Your task to perform on an android device: change the clock display to analog Image 0: 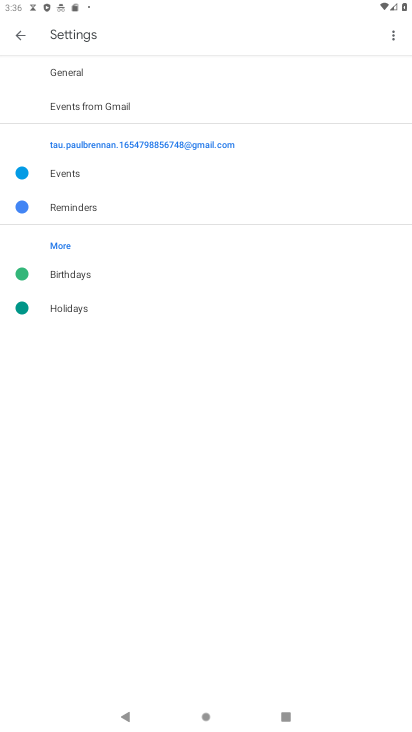
Step 0: click (23, 35)
Your task to perform on an android device: change the clock display to analog Image 1: 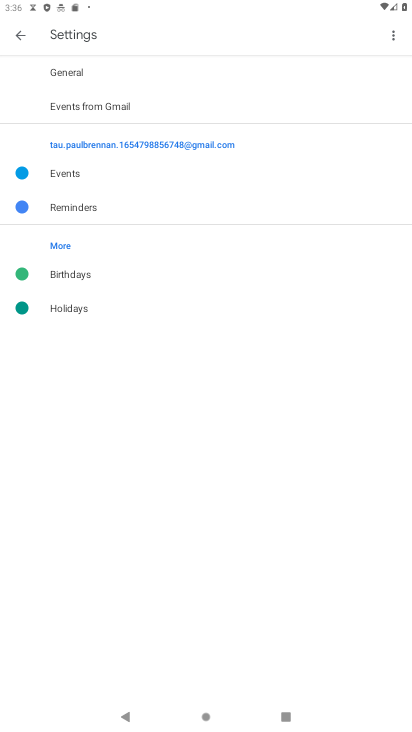
Step 1: click (18, 31)
Your task to perform on an android device: change the clock display to analog Image 2: 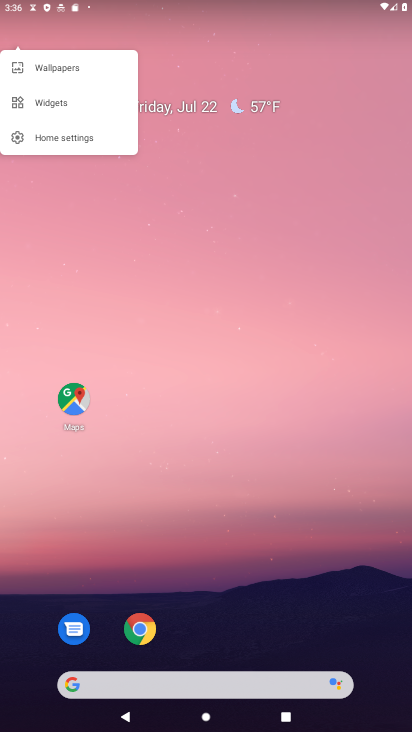
Step 2: drag from (113, 168) to (141, 12)
Your task to perform on an android device: change the clock display to analog Image 3: 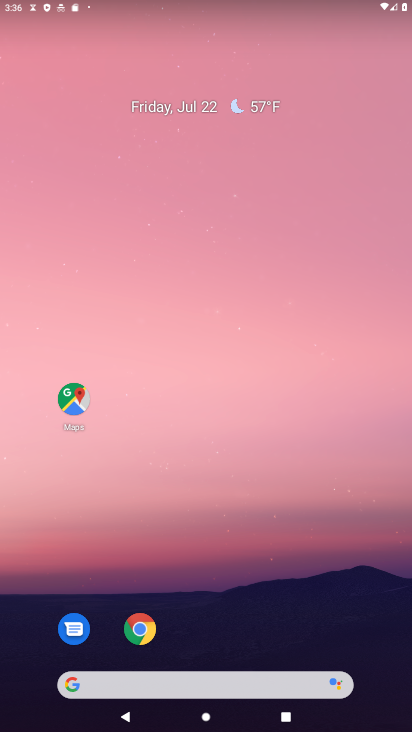
Step 3: drag from (199, 274) to (165, 113)
Your task to perform on an android device: change the clock display to analog Image 4: 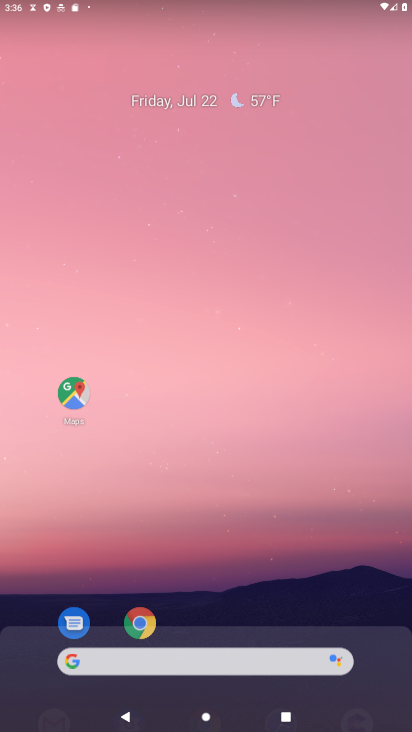
Step 4: drag from (121, 89) to (270, 268)
Your task to perform on an android device: change the clock display to analog Image 5: 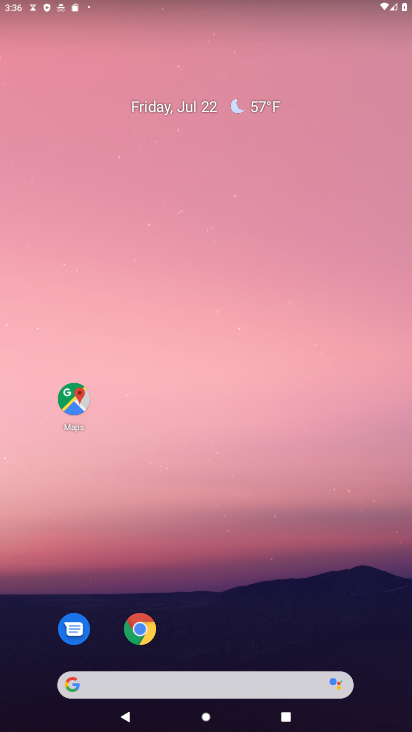
Step 5: drag from (206, 169) to (215, 290)
Your task to perform on an android device: change the clock display to analog Image 6: 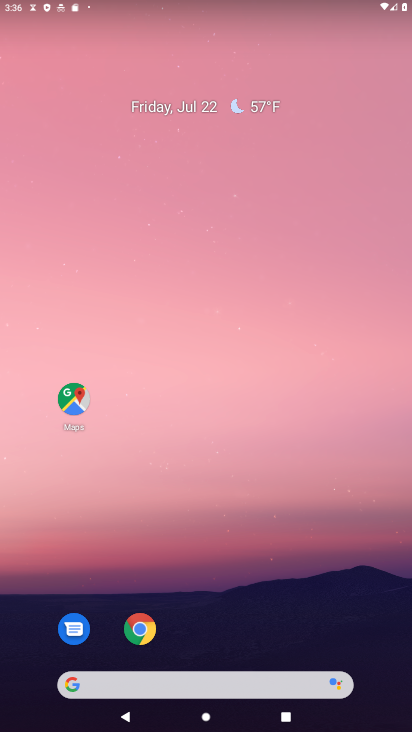
Step 6: drag from (266, 550) to (222, 81)
Your task to perform on an android device: change the clock display to analog Image 7: 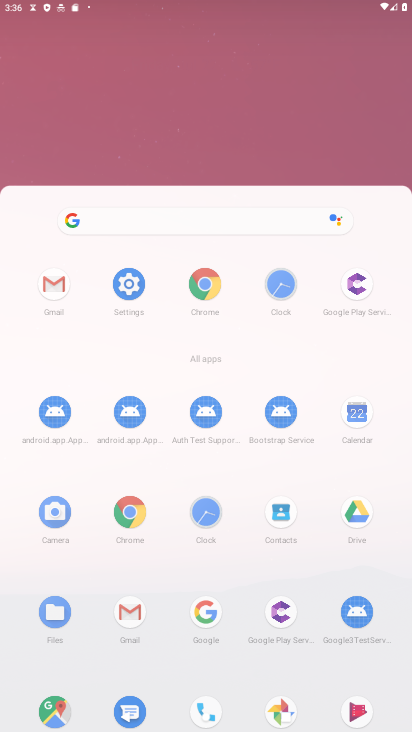
Step 7: drag from (171, 243) to (112, 11)
Your task to perform on an android device: change the clock display to analog Image 8: 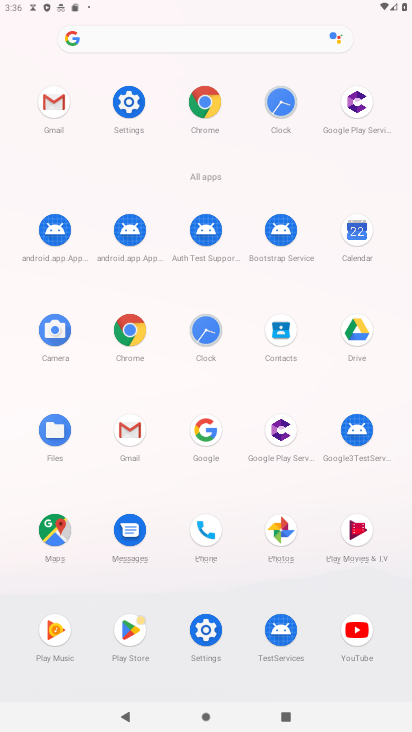
Step 8: drag from (200, 78) to (221, 11)
Your task to perform on an android device: change the clock display to analog Image 9: 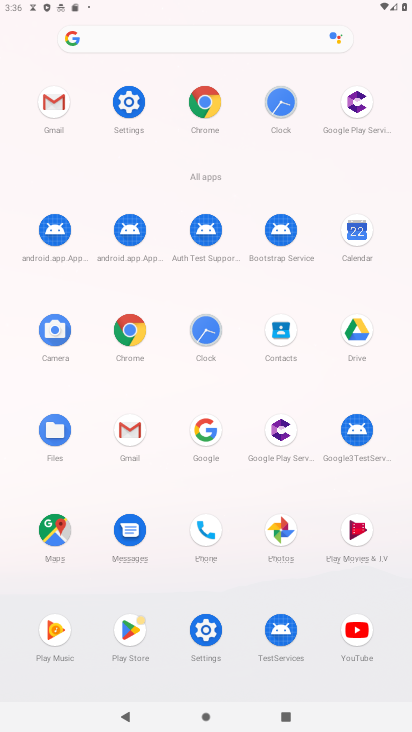
Step 9: click (207, 312)
Your task to perform on an android device: change the clock display to analog Image 10: 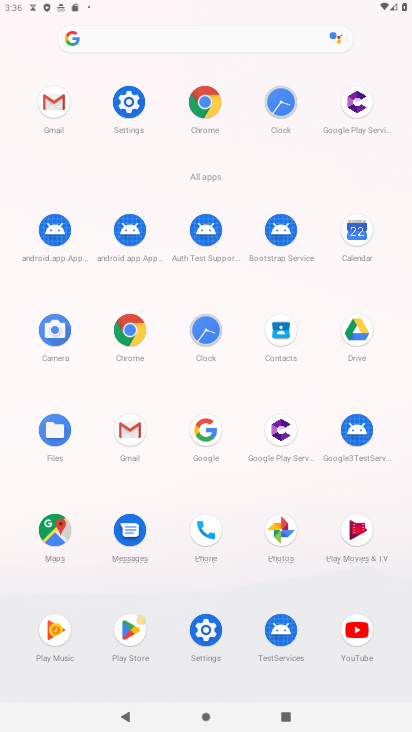
Step 10: click (207, 312)
Your task to perform on an android device: change the clock display to analog Image 11: 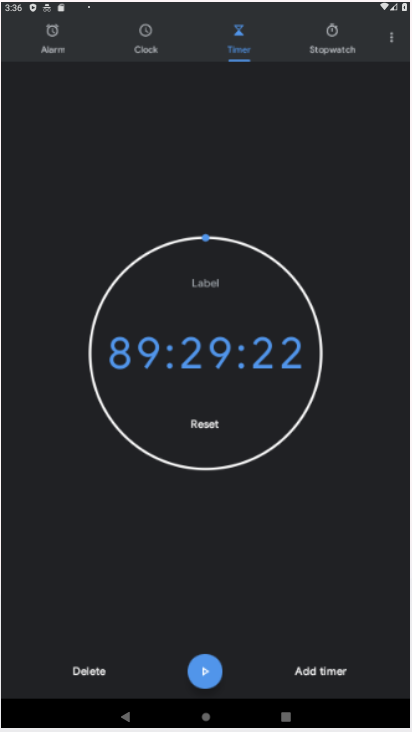
Step 11: click (207, 312)
Your task to perform on an android device: change the clock display to analog Image 12: 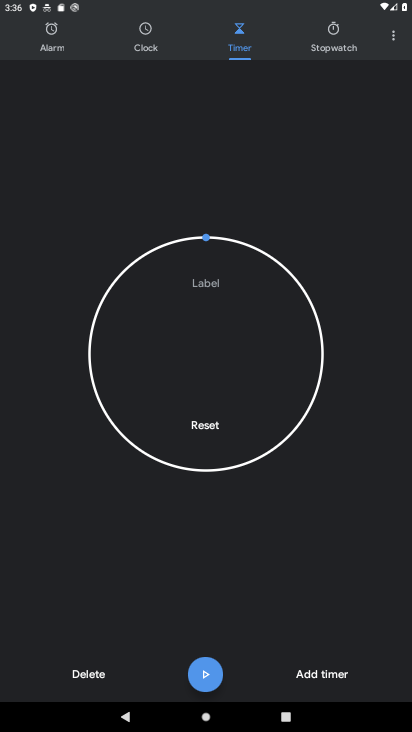
Step 12: click (208, 328)
Your task to perform on an android device: change the clock display to analog Image 13: 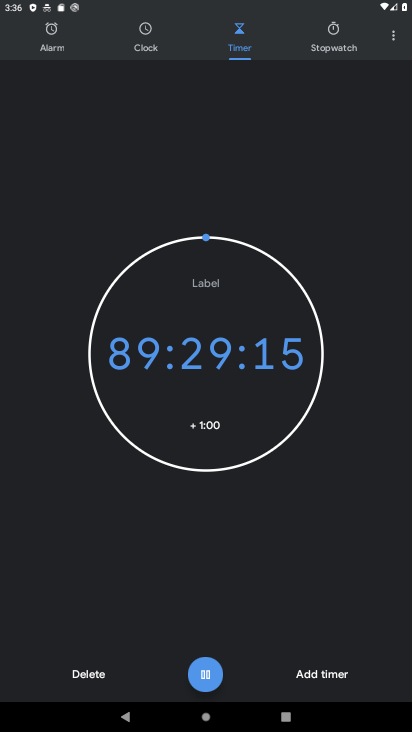
Step 13: click (396, 35)
Your task to perform on an android device: change the clock display to analog Image 14: 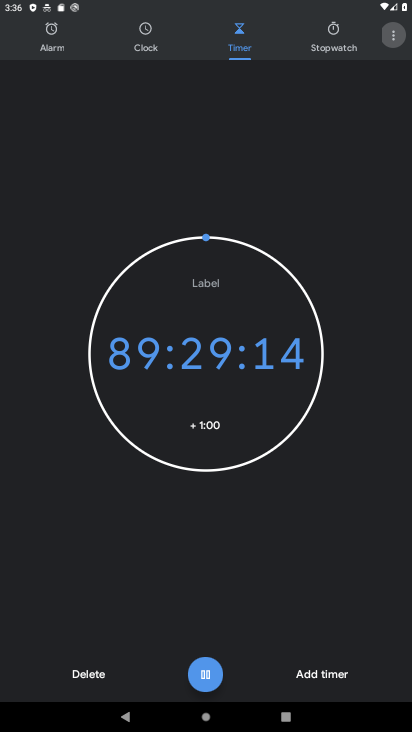
Step 14: click (396, 36)
Your task to perform on an android device: change the clock display to analog Image 15: 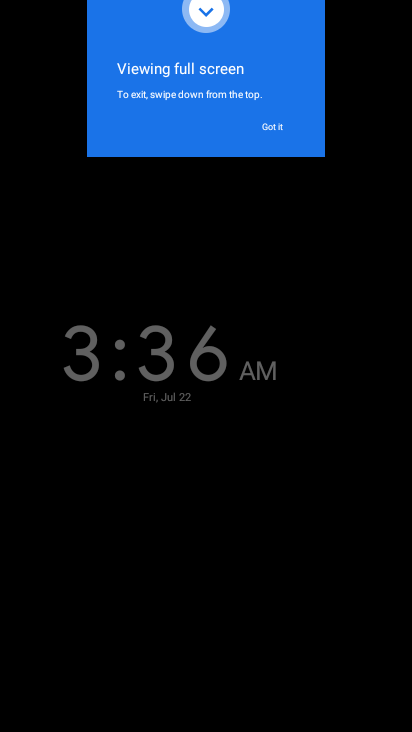
Step 15: drag from (265, 372) to (246, 42)
Your task to perform on an android device: change the clock display to analog Image 16: 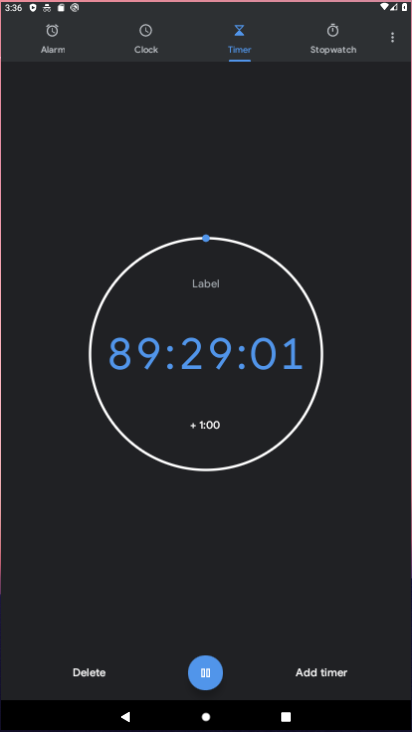
Step 16: click (267, 111)
Your task to perform on an android device: change the clock display to analog Image 17: 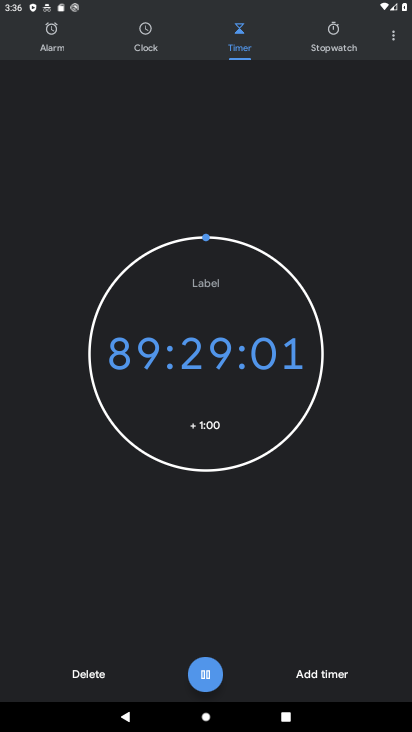
Step 17: click (267, 129)
Your task to perform on an android device: change the clock display to analog Image 18: 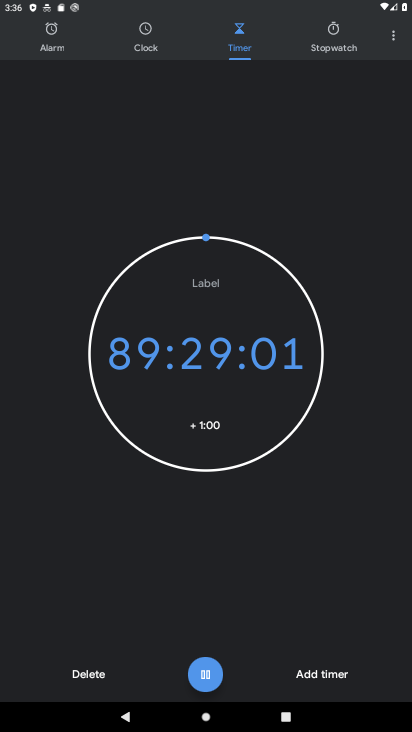
Step 18: click (267, 129)
Your task to perform on an android device: change the clock display to analog Image 19: 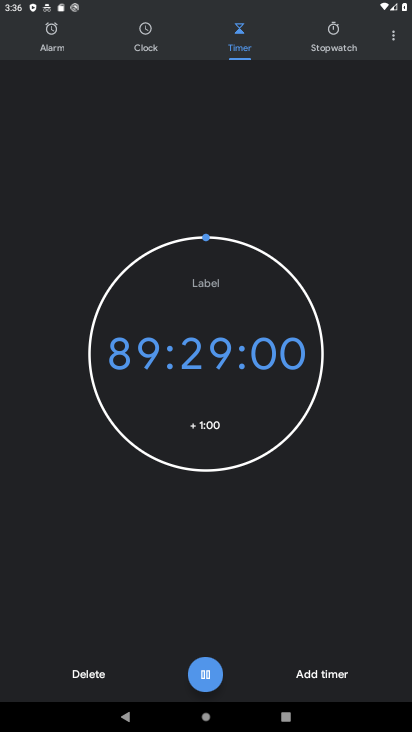
Step 19: drag from (390, 34) to (328, 178)
Your task to perform on an android device: change the clock display to analog Image 20: 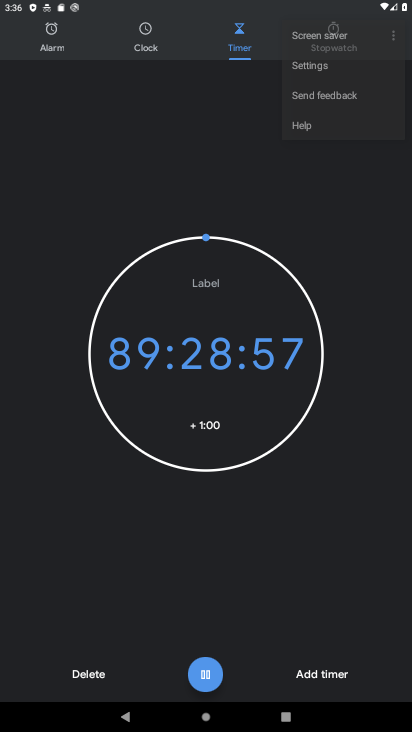
Step 20: click (378, 44)
Your task to perform on an android device: change the clock display to analog Image 21: 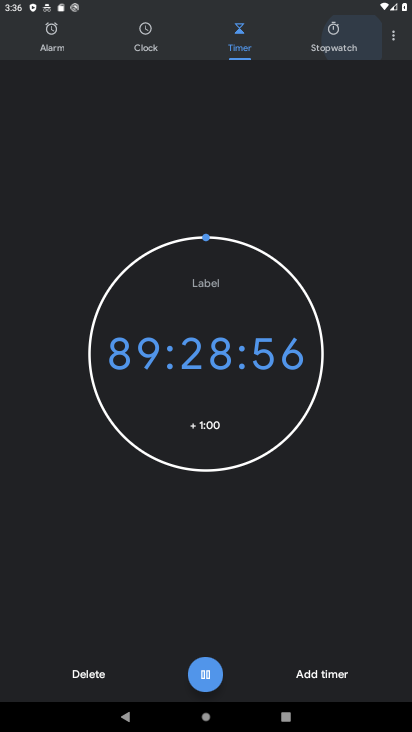
Step 21: click (316, 70)
Your task to perform on an android device: change the clock display to analog Image 22: 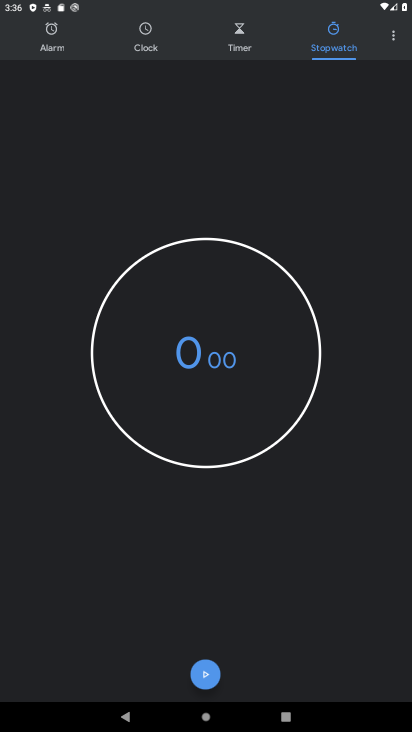
Step 22: click (316, 70)
Your task to perform on an android device: change the clock display to analog Image 23: 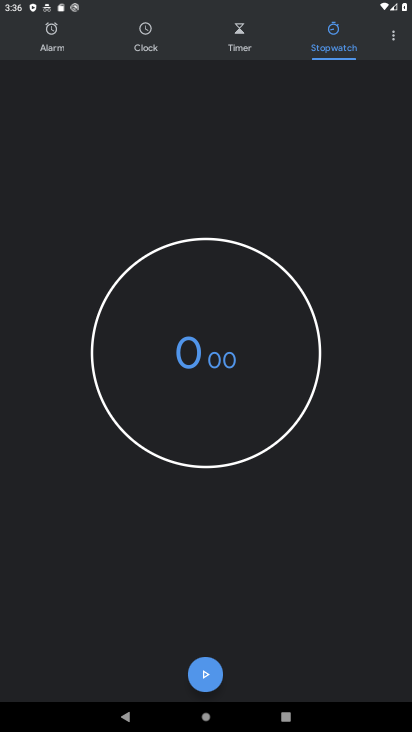
Step 23: click (315, 69)
Your task to perform on an android device: change the clock display to analog Image 24: 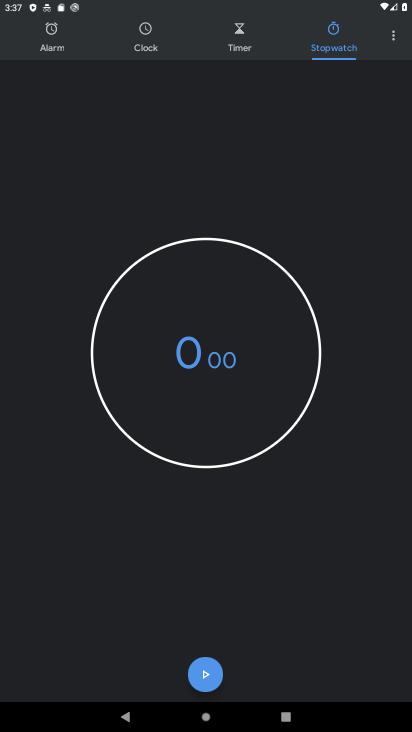
Step 24: click (384, 45)
Your task to perform on an android device: change the clock display to analog Image 25: 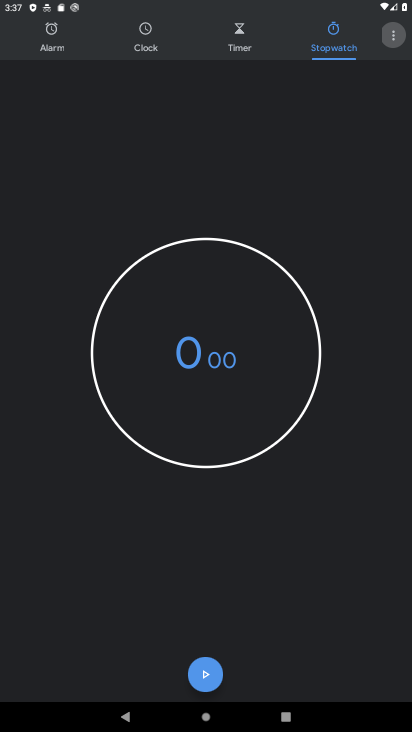
Step 25: click (386, 40)
Your task to perform on an android device: change the clock display to analog Image 26: 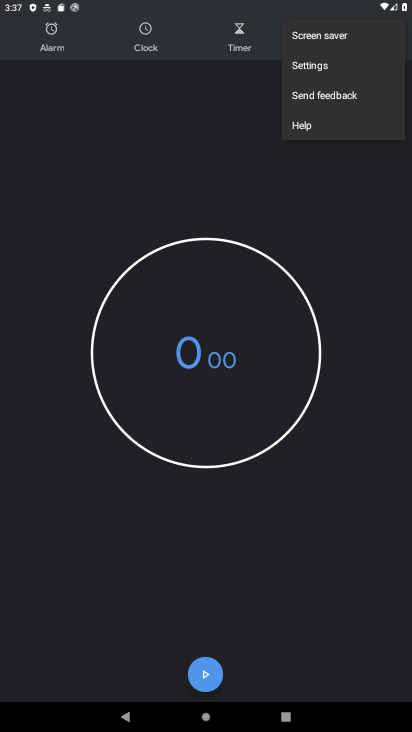
Step 26: click (317, 72)
Your task to perform on an android device: change the clock display to analog Image 27: 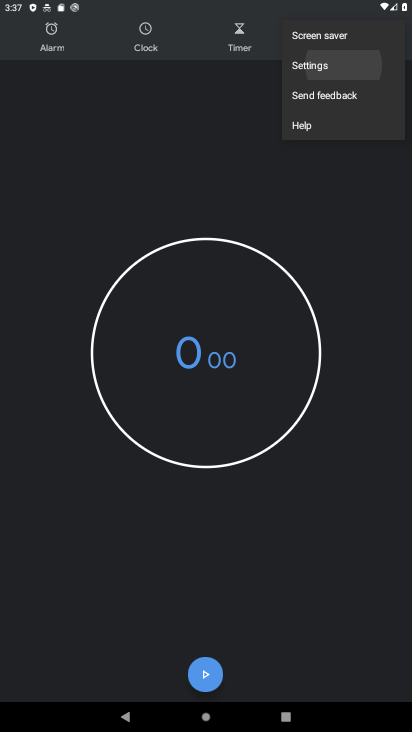
Step 27: click (318, 75)
Your task to perform on an android device: change the clock display to analog Image 28: 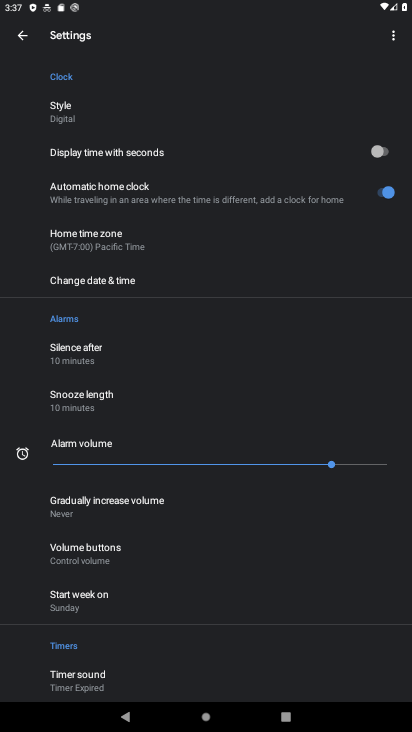
Step 28: click (48, 106)
Your task to perform on an android device: change the clock display to analog Image 29: 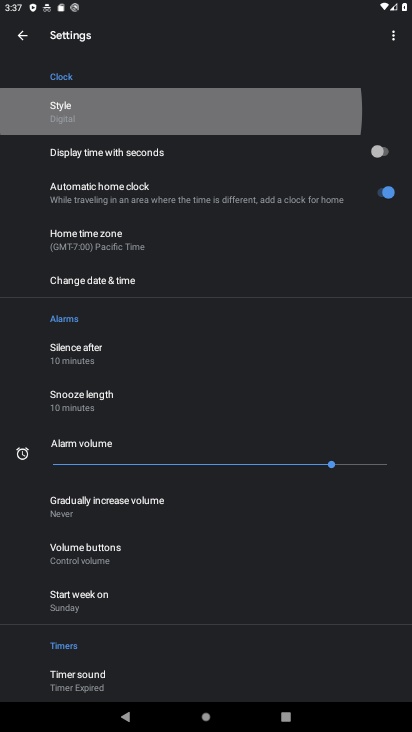
Step 29: click (49, 107)
Your task to perform on an android device: change the clock display to analog Image 30: 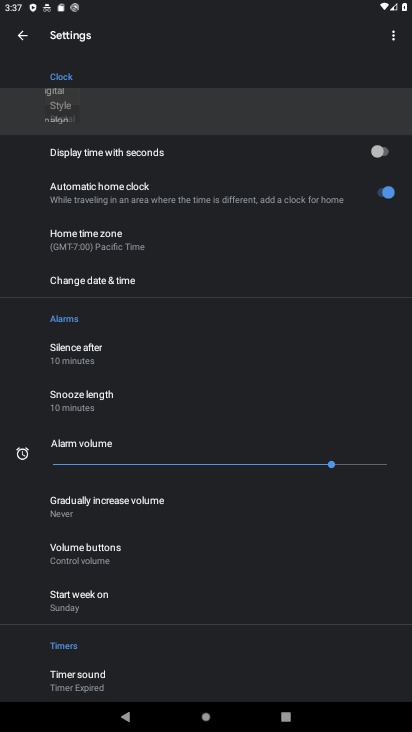
Step 30: click (49, 107)
Your task to perform on an android device: change the clock display to analog Image 31: 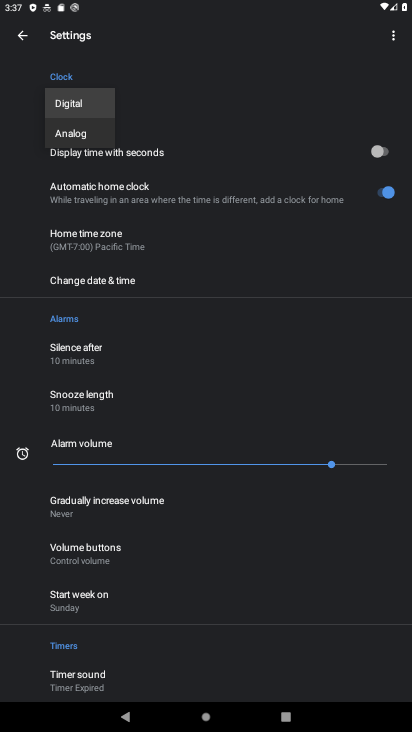
Step 31: click (49, 107)
Your task to perform on an android device: change the clock display to analog Image 32: 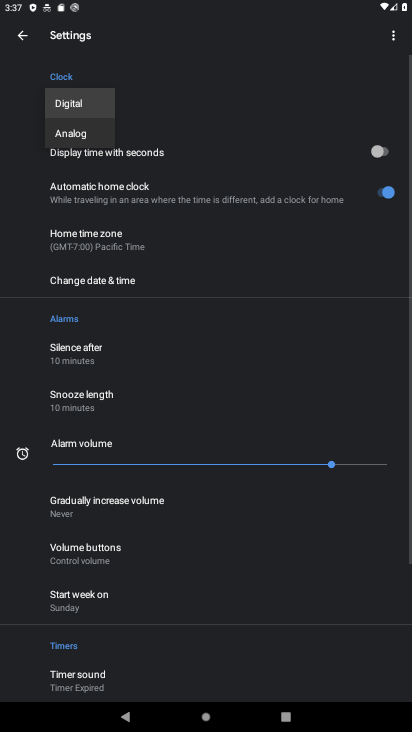
Step 32: click (74, 131)
Your task to perform on an android device: change the clock display to analog Image 33: 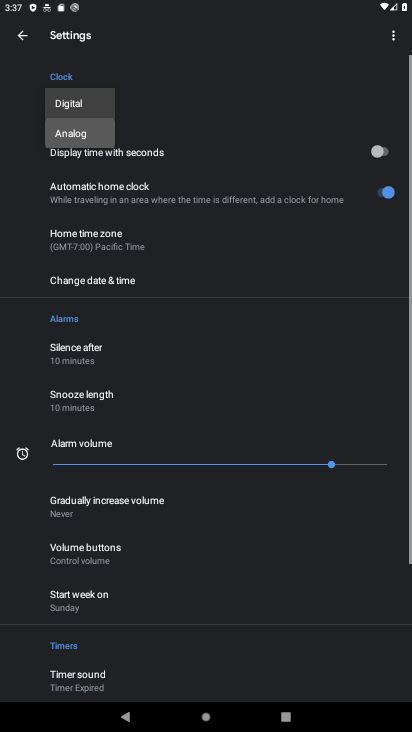
Step 33: click (71, 131)
Your task to perform on an android device: change the clock display to analog Image 34: 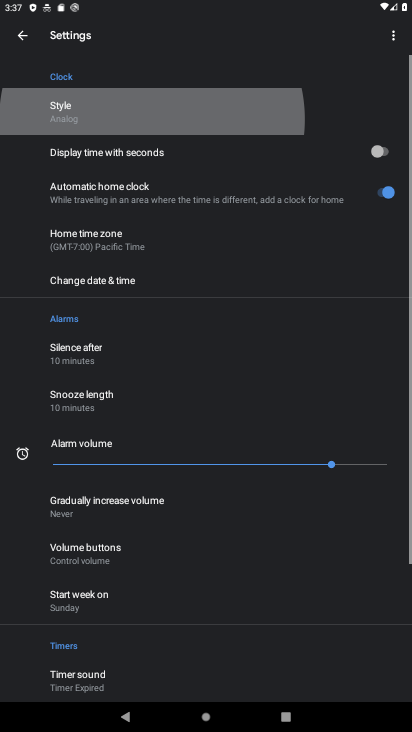
Step 34: click (70, 131)
Your task to perform on an android device: change the clock display to analog Image 35: 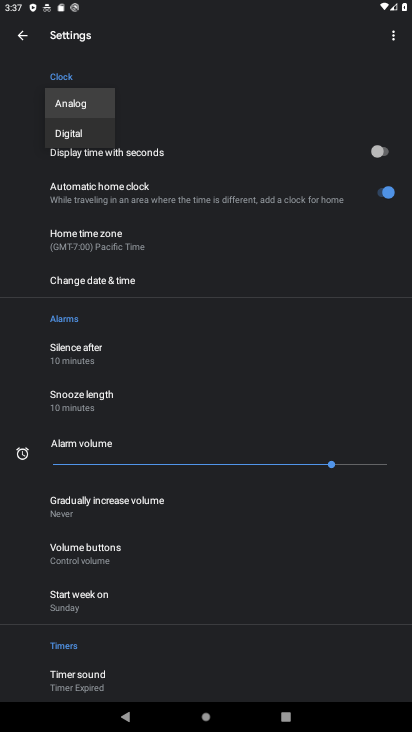
Step 35: click (79, 109)
Your task to perform on an android device: change the clock display to analog Image 36: 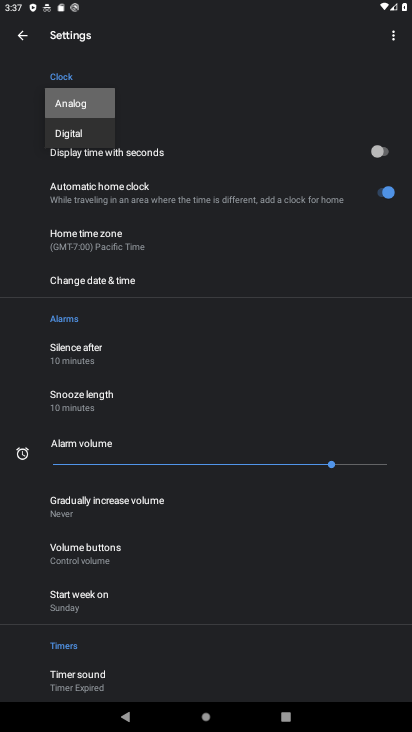
Step 36: click (79, 108)
Your task to perform on an android device: change the clock display to analog Image 37: 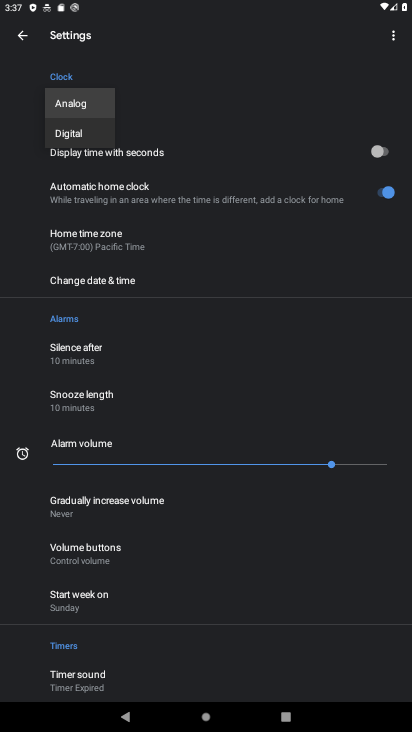
Step 37: task complete